Your task to perform on an android device: set an alarm Image 0: 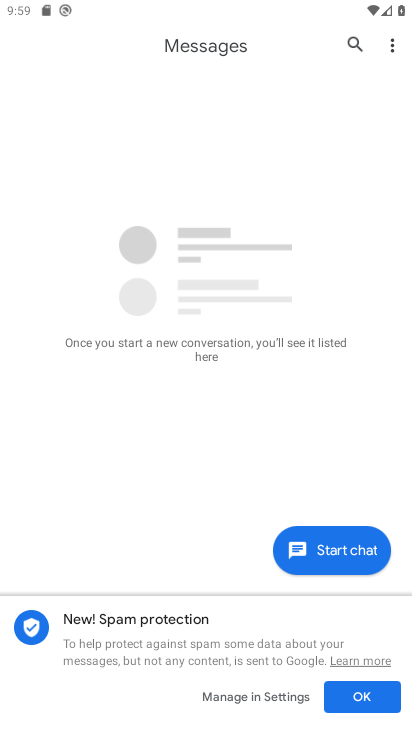
Step 0: click (410, 636)
Your task to perform on an android device: set an alarm Image 1: 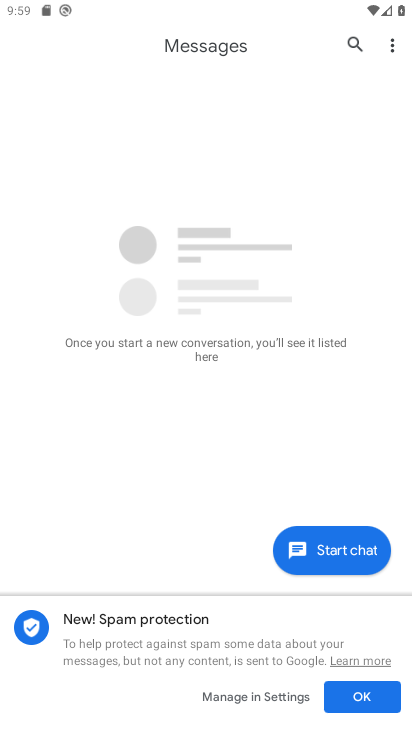
Step 1: drag from (234, 614) to (302, 383)
Your task to perform on an android device: set an alarm Image 2: 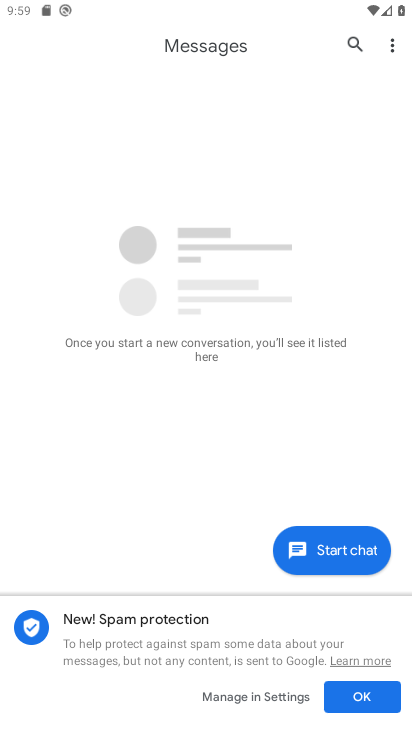
Step 2: press home button
Your task to perform on an android device: set an alarm Image 3: 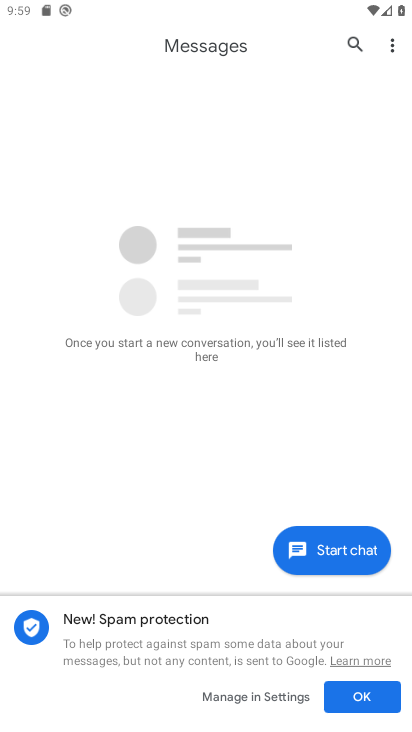
Step 3: press home button
Your task to perform on an android device: set an alarm Image 4: 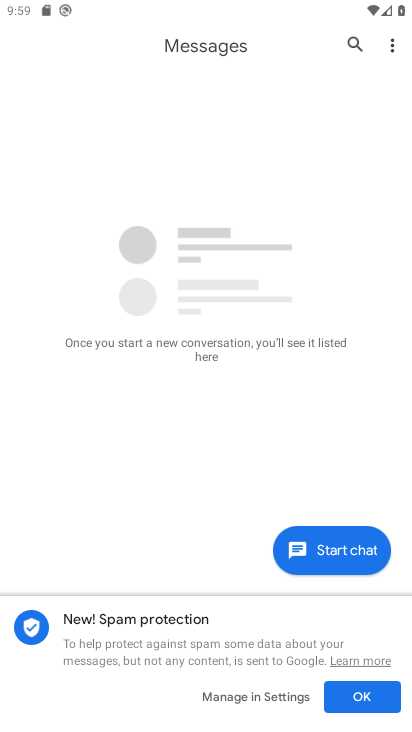
Step 4: click (321, 163)
Your task to perform on an android device: set an alarm Image 5: 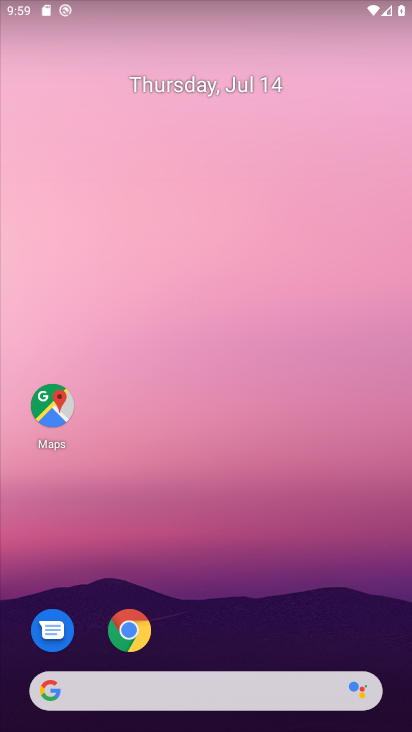
Step 5: drag from (191, 626) to (223, 509)
Your task to perform on an android device: set an alarm Image 6: 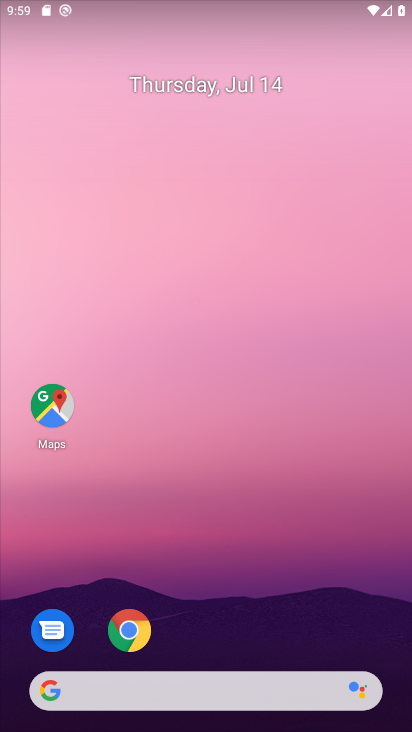
Step 6: drag from (251, 527) to (304, 128)
Your task to perform on an android device: set an alarm Image 7: 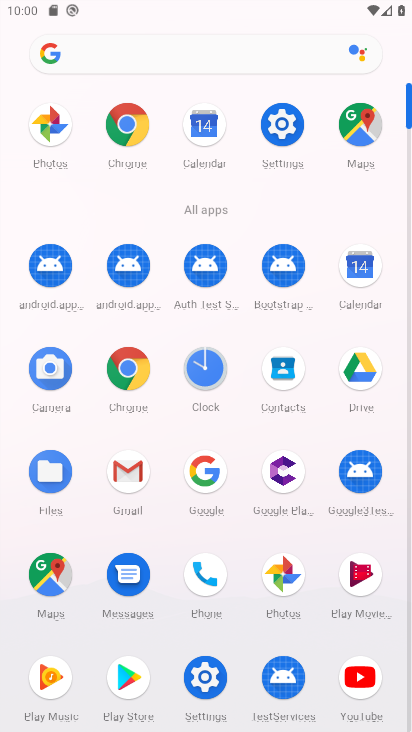
Step 7: click (204, 349)
Your task to perform on an android device: set an alarm Image 8: 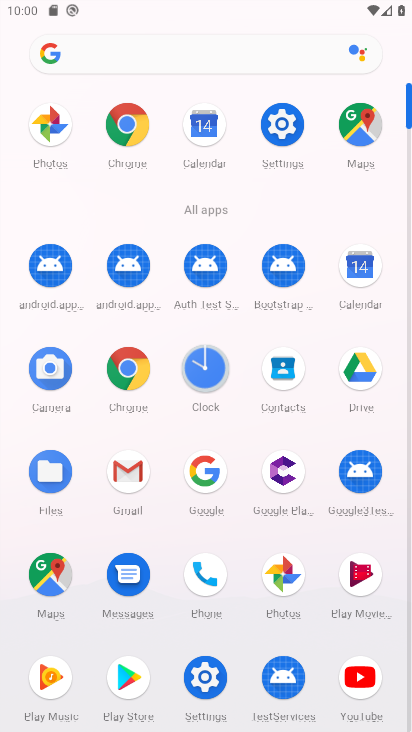
Step 8: click (205, 347)
Your task to perform on an android device: set an alarm Image 9: 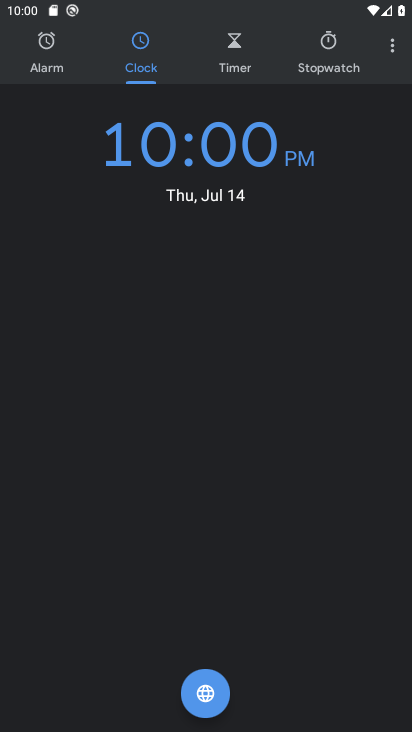
Step 9: drag from (302, 523) to (307, 259)
Your task to perform on an android device: set an alarm Image 10: 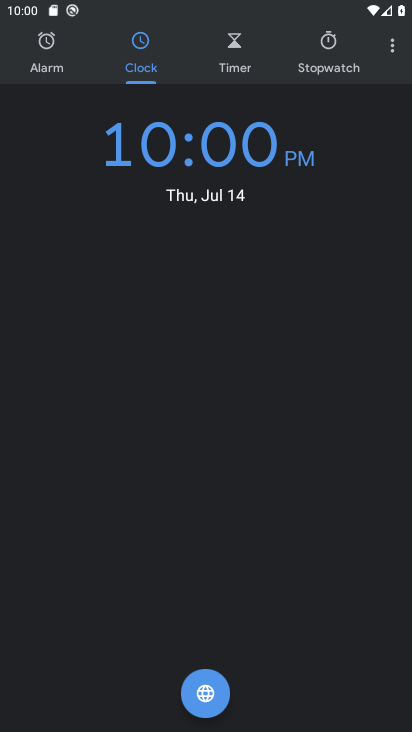
Step 10: click (46, 54)
Your task to perform on an android device: set an alarm Image 11: 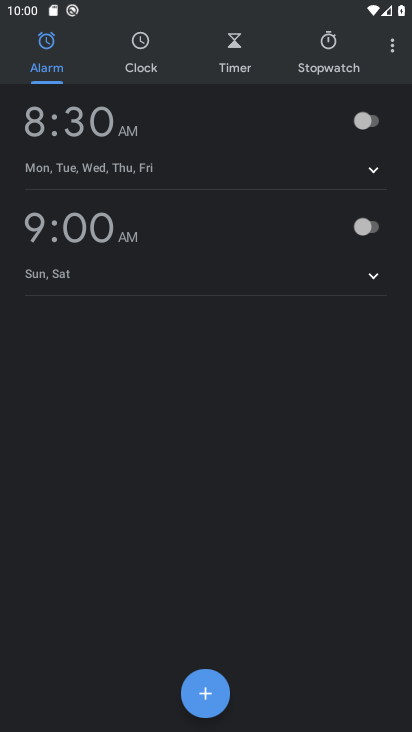
Step 11: click (358, 122)
Your task to perform on an android device: set an alarm Image 12: 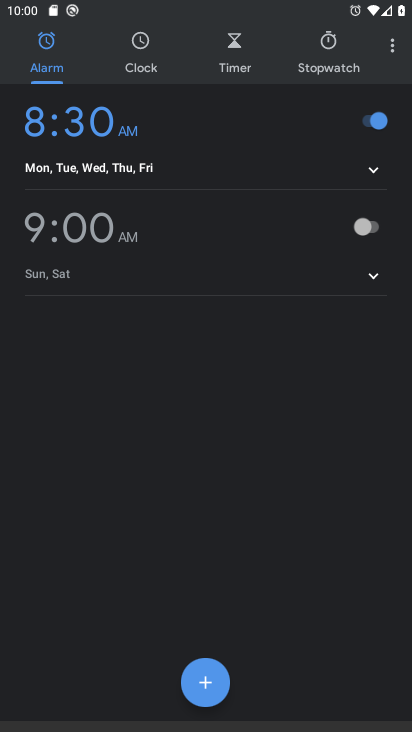
Step 12: task complete